Your task to perform on an android device: toggle show notifications on the lock screen Image 0: 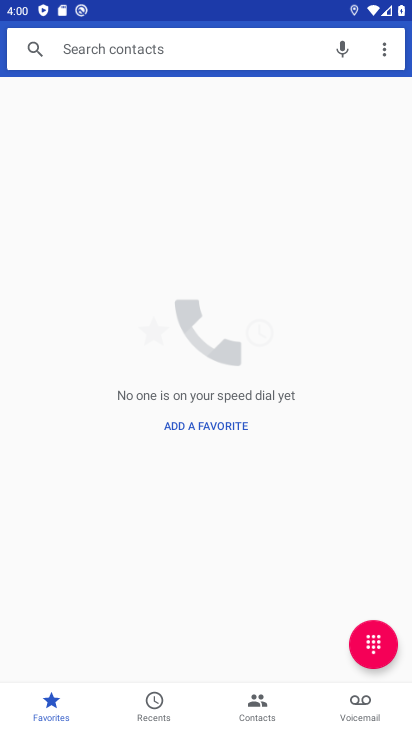
Step 0: press home button
Your task to perform on an android device: toggle show notifications on the lock screen Image 1: 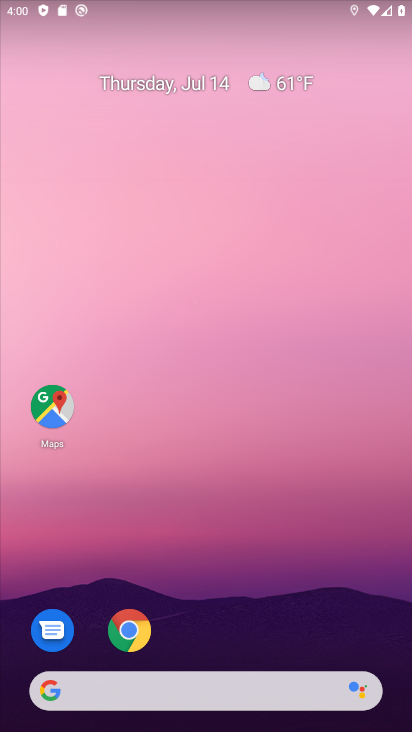
Step 1: drag from (252, 627) to (205, 214)
Your task to perform on an android device: toggle show notifications on the lock screen Image 2: 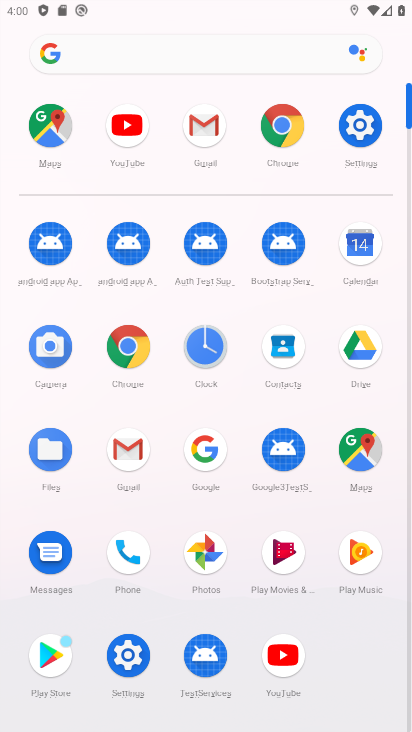
Step 2: click (357, 112)
Your task to perform on an android device: toggle show notifications on the lock screen Image 3: 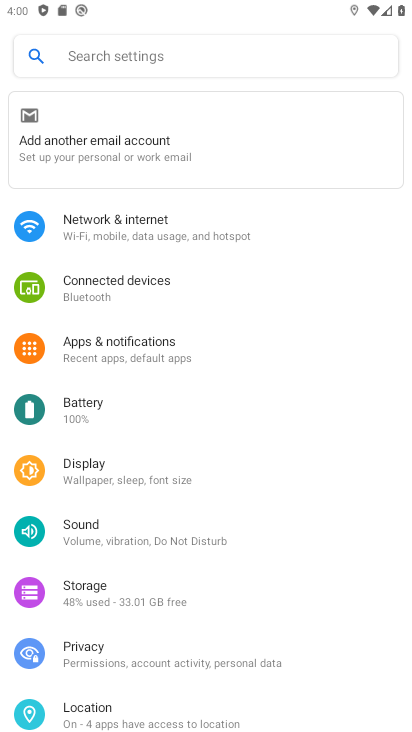
Step 3: click (167, 355)
Your task to perform on an android device: toggle show notifications on the lock screen Image 4: 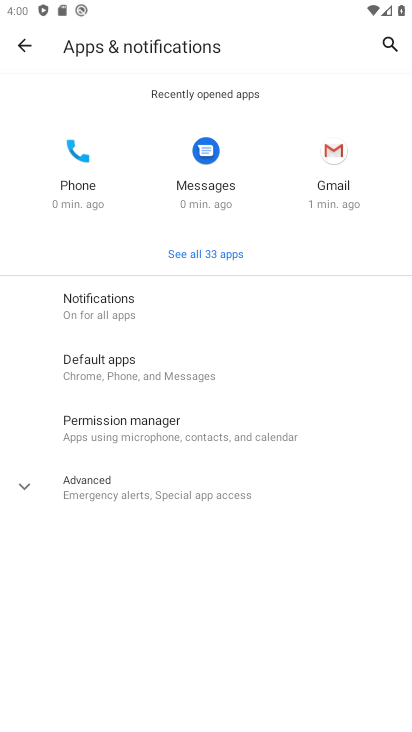
Step 4: click (147, 313)
Your task to perform on an android device: toggle show notifications on the lock screen Image 5: 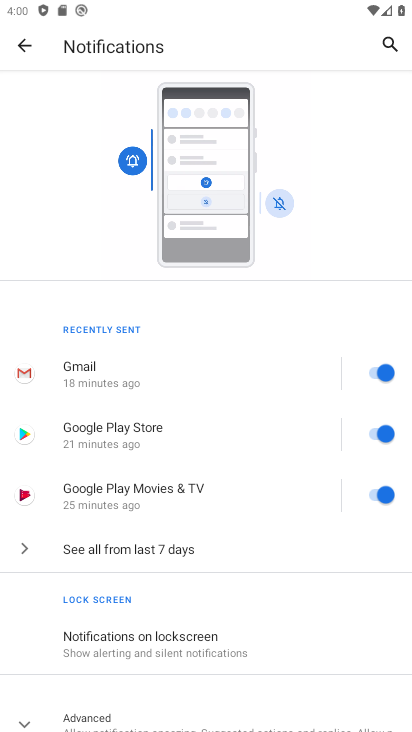
Step 5: click (261, 632)
Your task to perform on an android device: toggle show notifications on the lock screen Image 6: 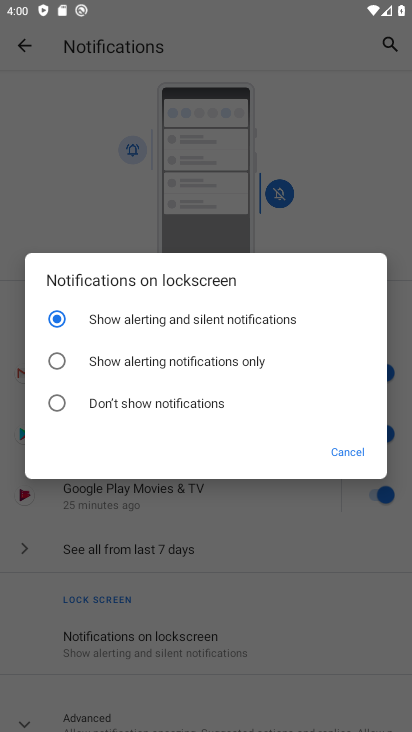
Step 6: click (171, 348)
Your task to perform on an android device: toggle show notifications on the lock screen Image 7: 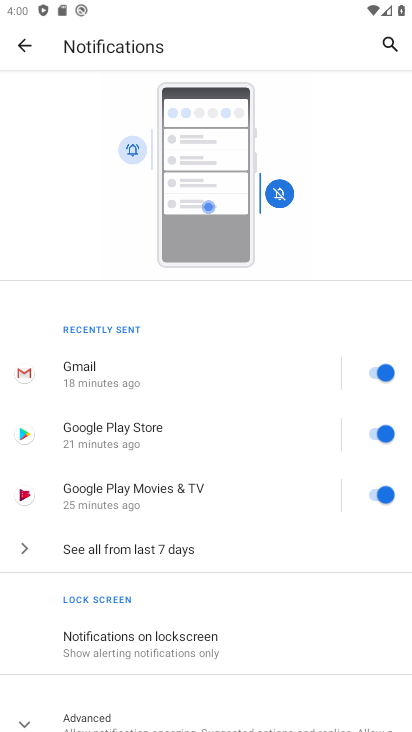
Step 7: task complete